Your task to perform on an android device: make emails show in primary in the gmail app Image 0: 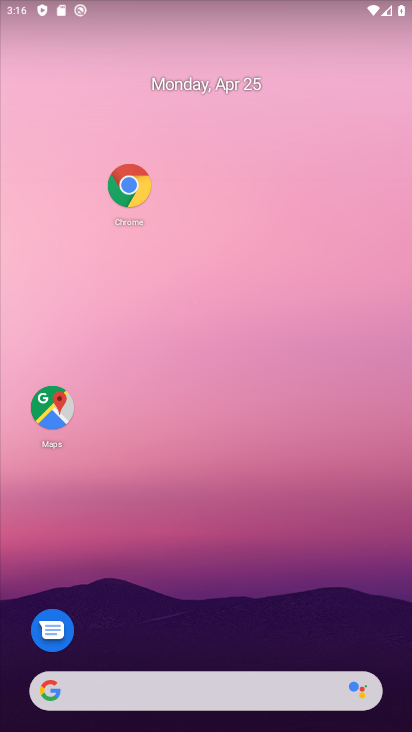
Step 0: drag from (152, 648) to (201, 98)
Your task to perform on an android device: make emails show in primary in the gmail app Image 1: 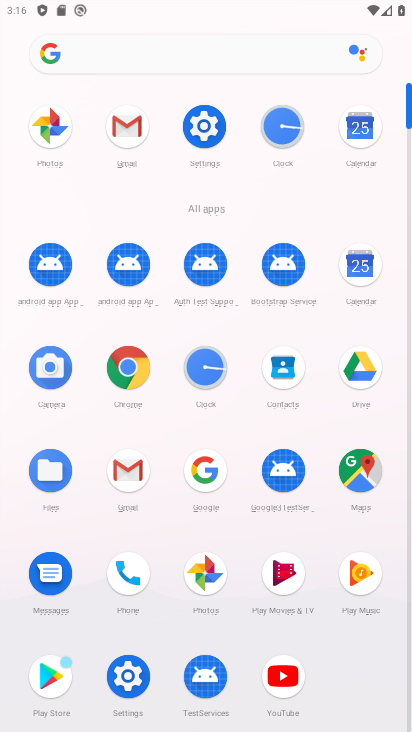
Step 1: click (123, 472)
Your task to perform on an android device: make emails show in primary in the gmail app Image 2: 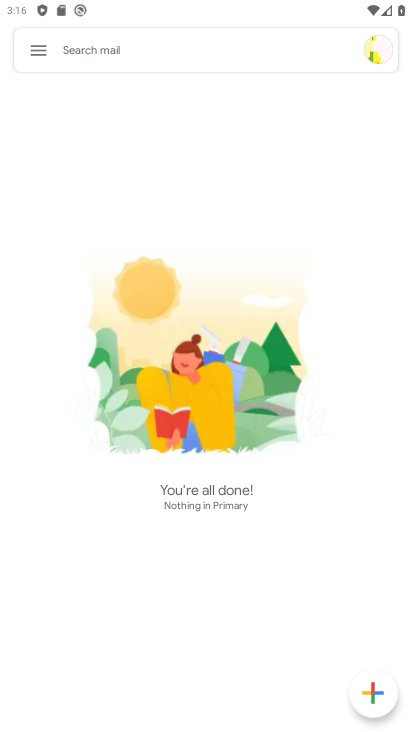
Step 2: click (46, 45)
Your task to perform on an android device: make emails show in primary in the gmail app Image 3: 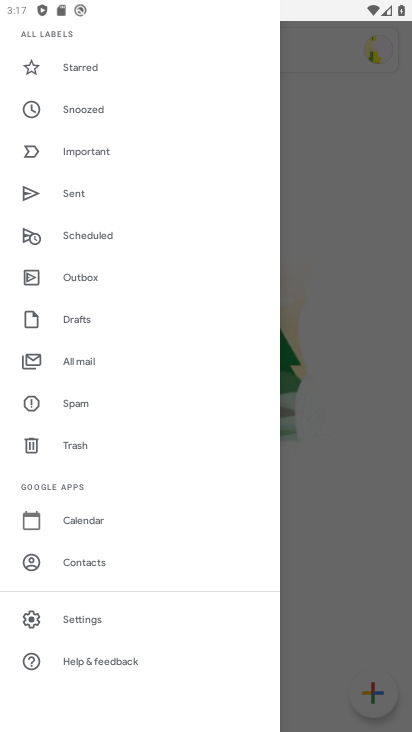
Step 3: click (70, 622)
Your task to perform on an android device: make emails show in primary in the gmail app Image 4: 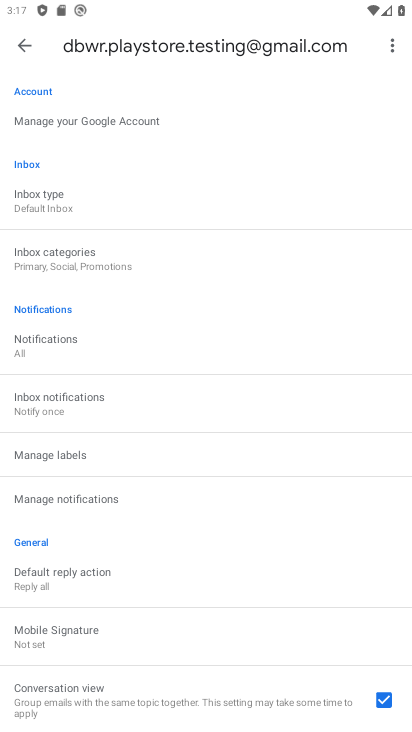
Step 4: click (43, 261)
Your task to perform on an android device: make emails show in primary in the gmail app Image 5: 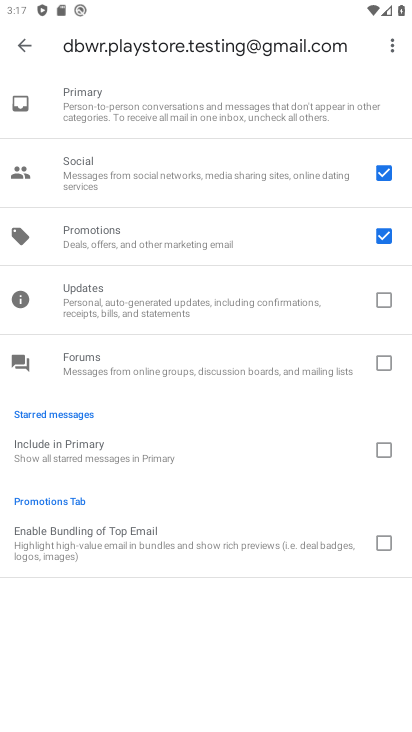
Step 5: click (307, 103)
Your task to perform on an android device: make emails show in primary in the gmail app Image 6: 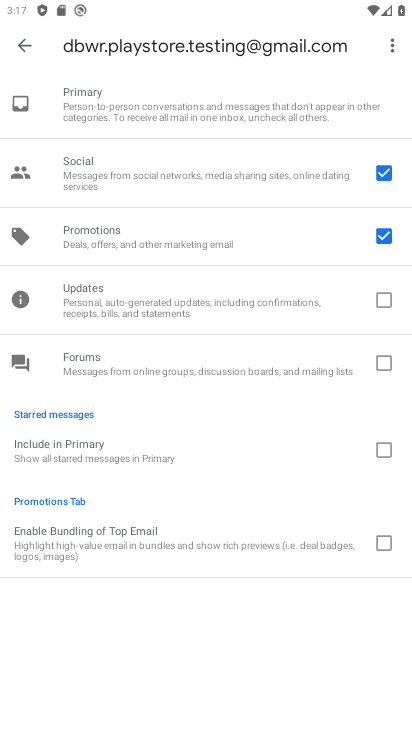
Step 6: click (331, 450)
Your task to perform on an android device: make emails show in primary in the gmail app Image 7: 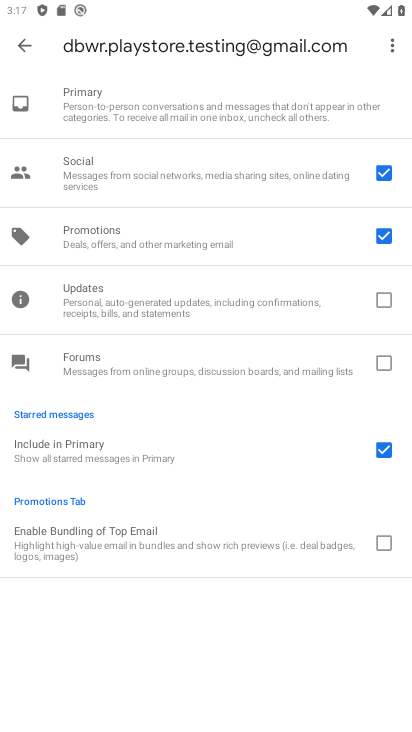
Step 7: task complete